Your task to perform on an android device: toggle notification dots Image 0: 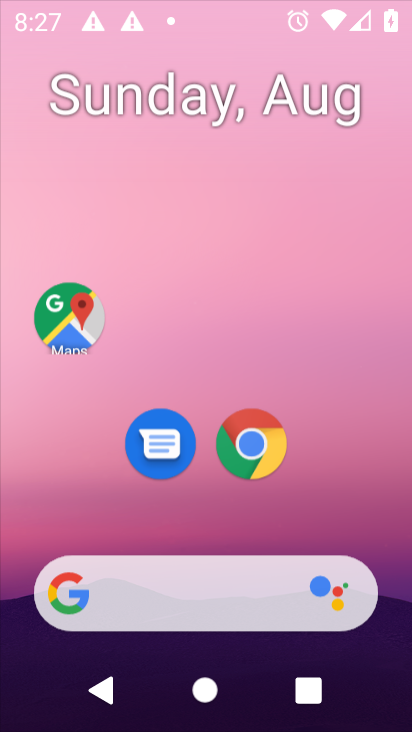
Step 0: press home button
Your task to perform on an android device: toggle notification dots Image 1: 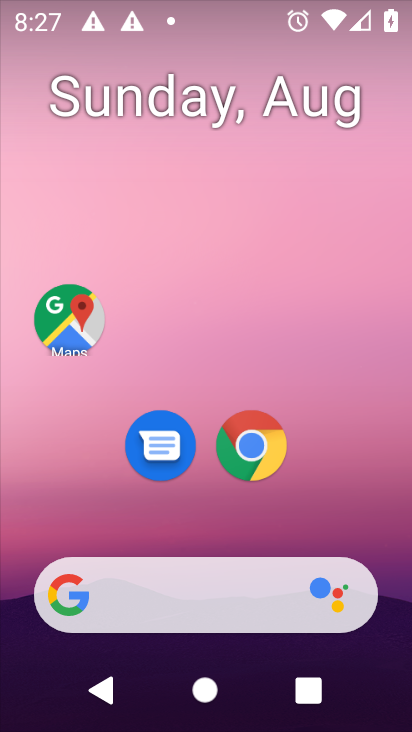
Step 1: drag from (204, 517) to (194, 24)
Your task to perform on an android device: toggle notification dots Image 2: 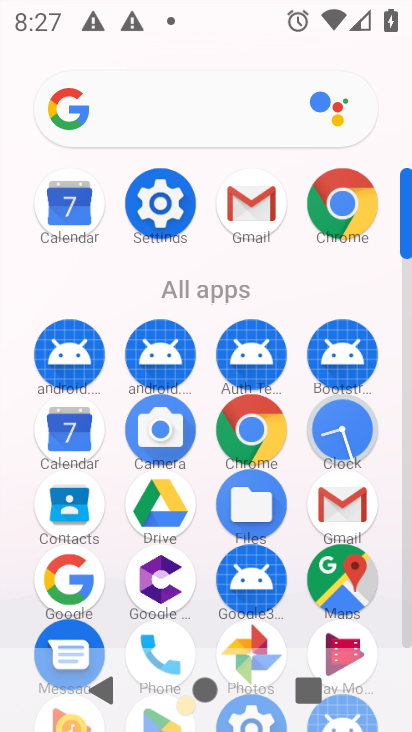
Step 2: click (157, 195)
Your task to perform on an android device: toggle notification dots Image 3: 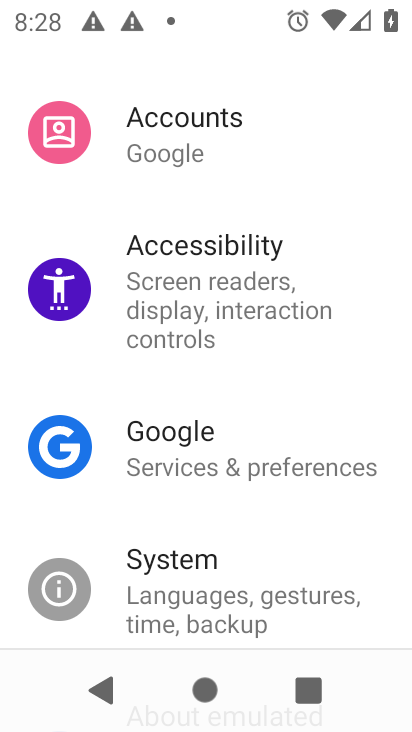
Step 3: drag from (107, 126) to (98, 695)
Your task to perform on an android device: toggle notification dots Image 4: 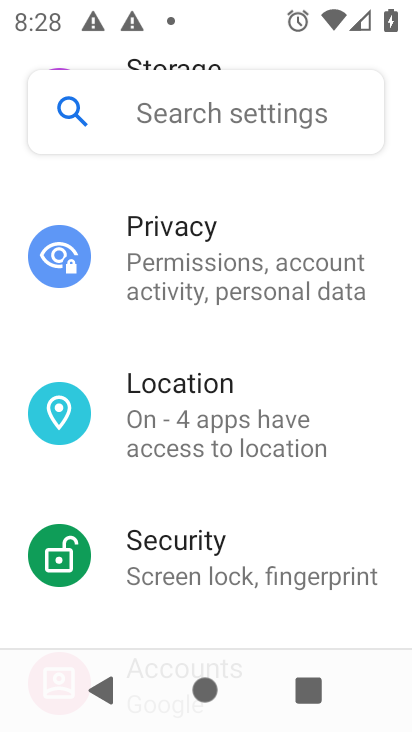
Step 4: drag from (116, 201) to (116, 619)
Your task to perform on an android device: toggle notification dots Image 5: 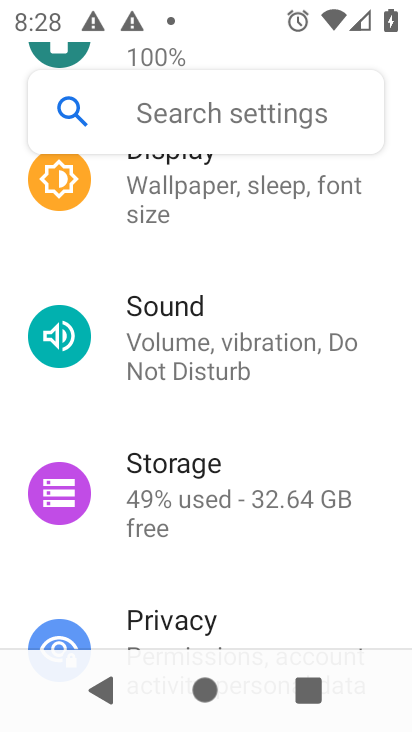
Step 5: drag from (111, 159) to (124, 700)
Your task to perform on an android device: toggle notification dots Image 6: 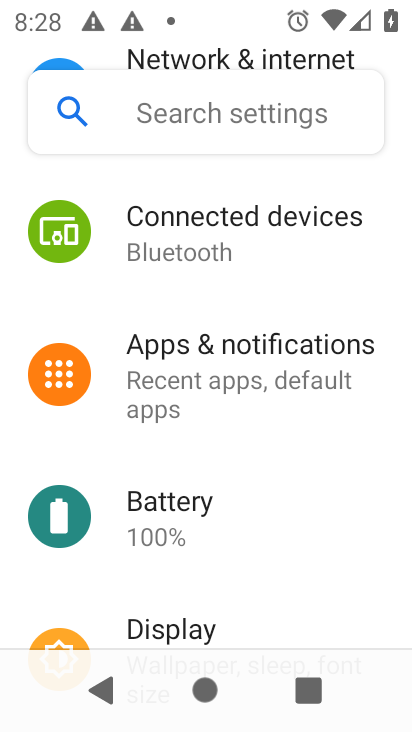
Step 6: click (115, 360)
Your task to perform on an android device: toggle notification dots Image 7: 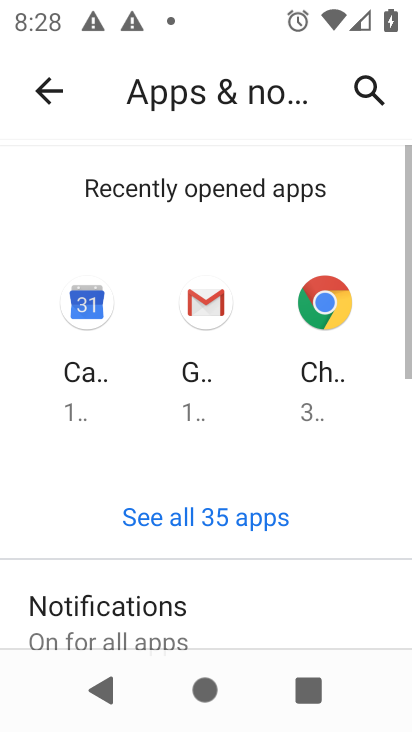
Step 7: drag from (196, 619) to (215, 361)
Your task to perform on an android device: toggle notification dots Image 8: 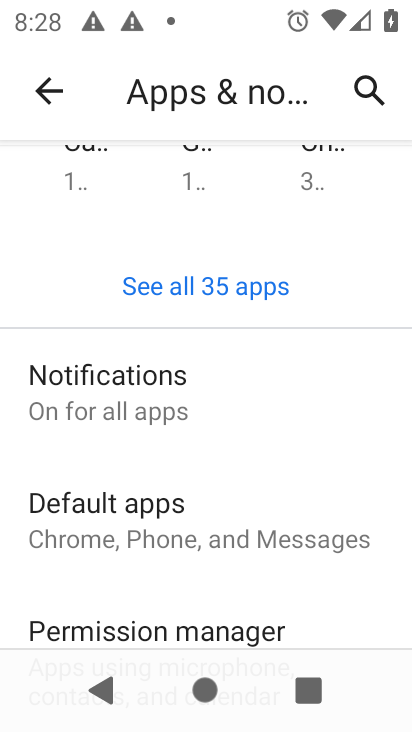
Step 8: click (217, 392)
Your task to perform on an android device: toggle notification dots Image 9: 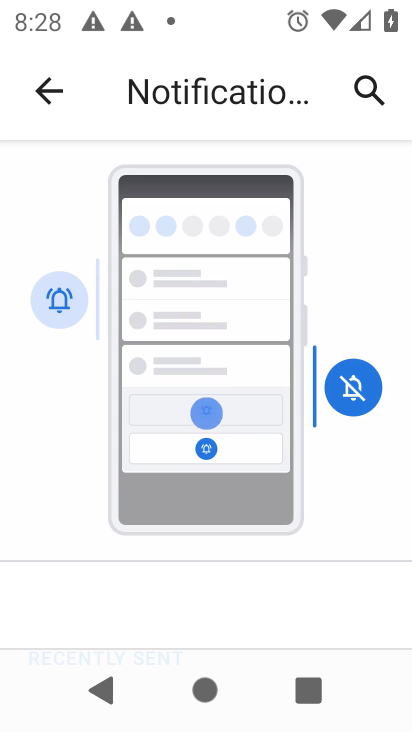
Step 9: drag from (217, 576) to (235, 82)
Your task to perform on an android device: toggle notification dots Image 10: 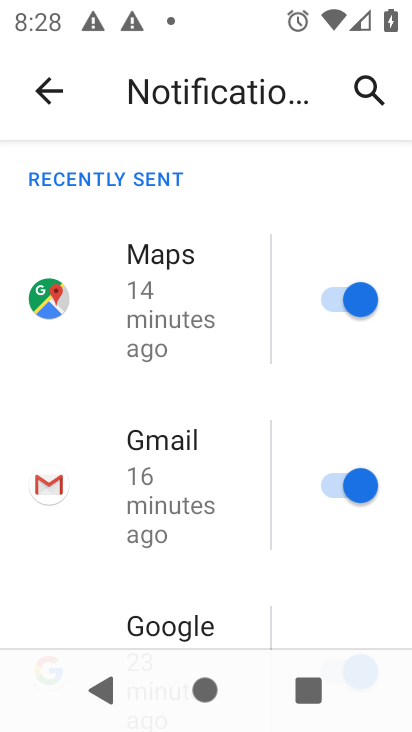
Step 10: drag from (222, 605) to (234, 131)
Your task to perform on an android device: toggle notification dots Image 11: 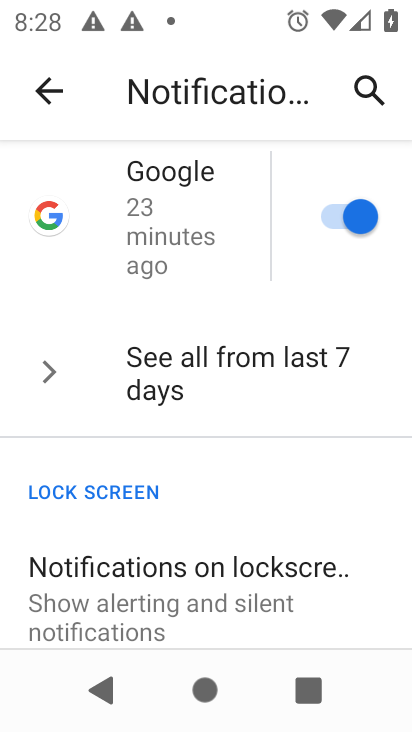
Step 11: drag from (190, 530) to (199, 121)
Your task to perform on an android device: toggle notification dots Image 12: 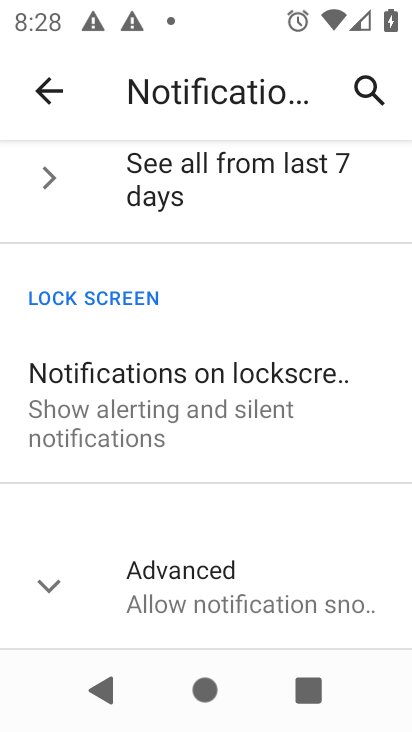
Step 12: click (50, 583)
Your task to perform on an android device: toggle notification dots Image 13: 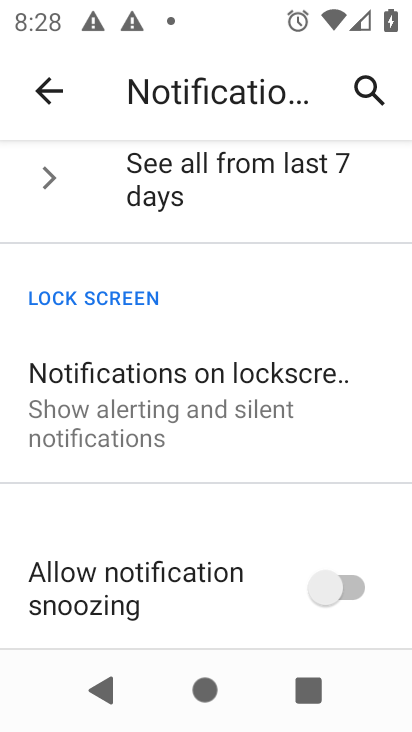
Step 13: drag from (202, 593) to (192, 198)
Your task to perform on an android device: toggle notification dots Image 14: 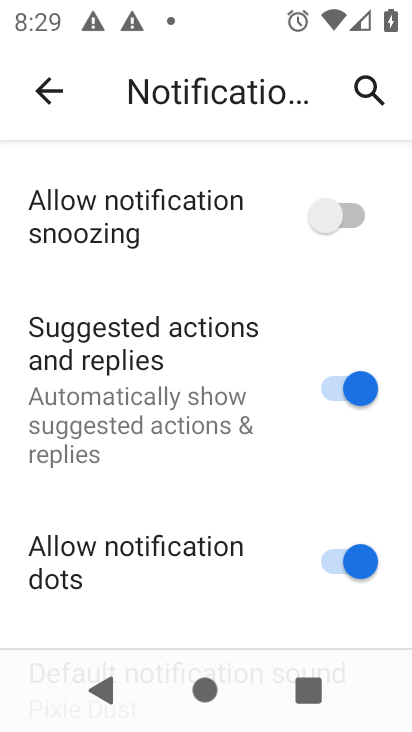
Step 14: click (347, 559)
Your task to perform on an android device: toggle notification dots Image 15: 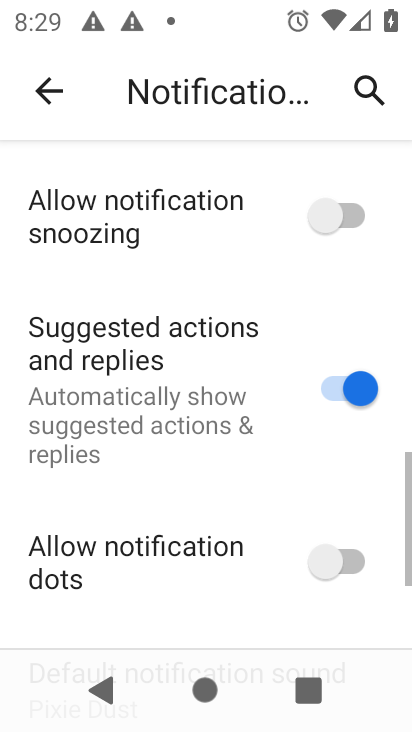
Step 15: task complete